Your task to perform on an android device: check google app version Image 0: 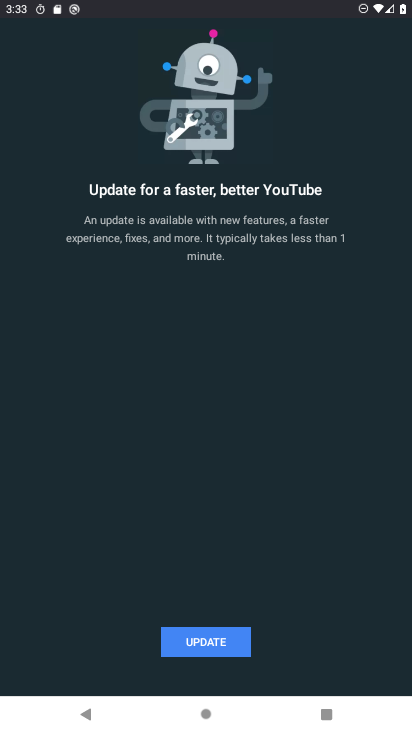
Step 0: press home button
Your task to perform on an android device: check google app version Image 1: 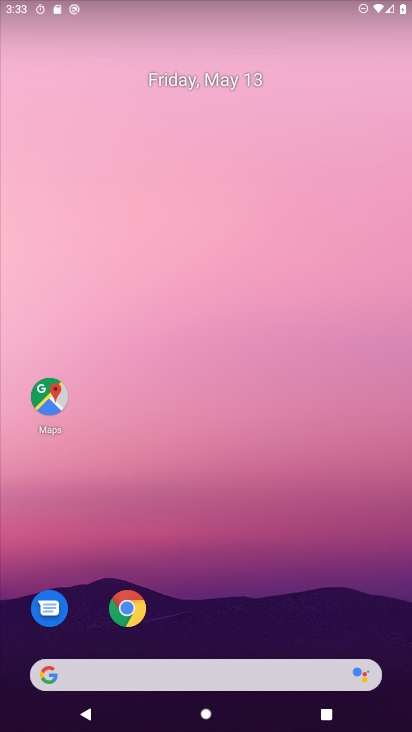
Step 1: drag from (255, 606) to (253, 122)
Your task to perform on an android device: check google app version Image 2: 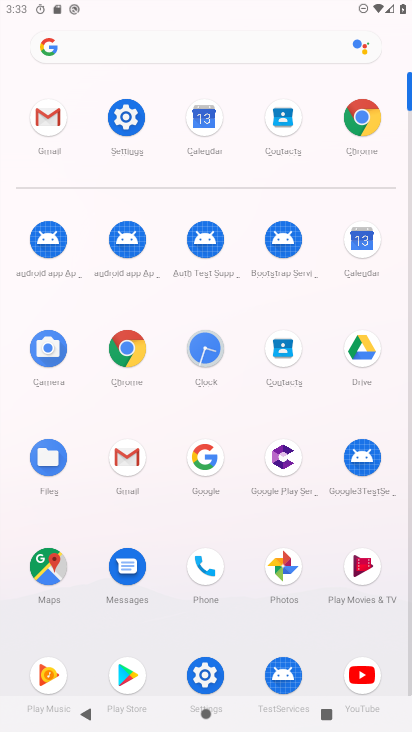
Step 2: click (215, 456)
Your task to perform on an android device: check google app version Image 3: 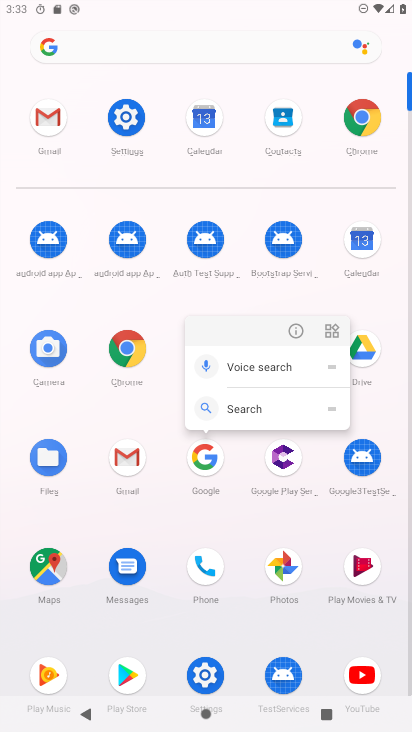
Step 3: click (294, 328)
Your task to perform on an android device: check google app version Image 4: 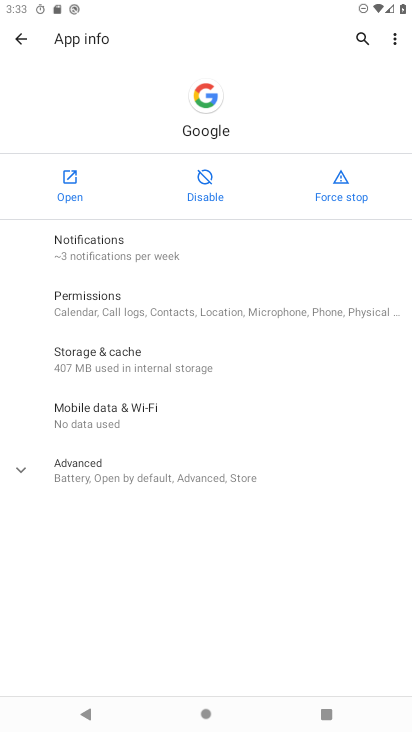
Step 4: click (158, 482)
Your task to perform on an android device: check google app version Image 5: 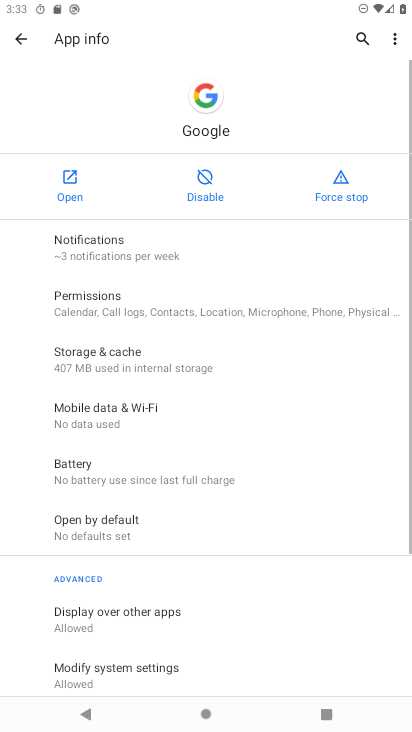
Step 5: task complete